Your task to perform on an android device: open app "Google Play Music" (install if not already installed) Image 0: 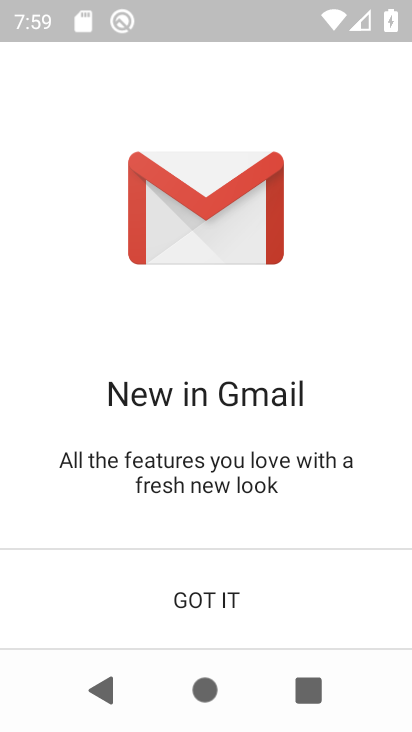
Step 0: press home button
Your task to perform on an android device: open app "Google Play Music" (install if not already installed) Image 1: 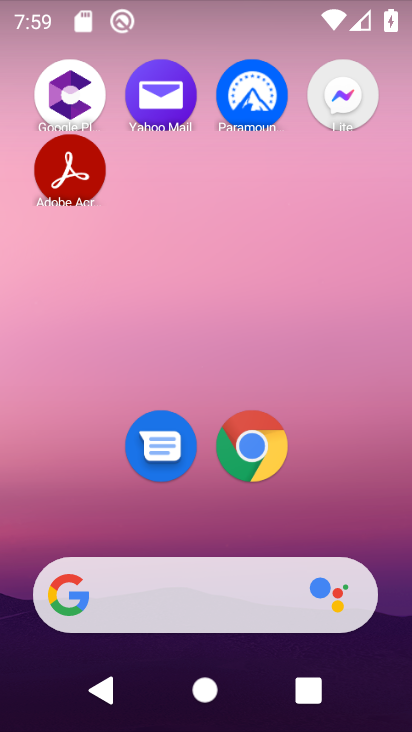
Step 1: drag from (214, 540) to (226, 104)
Your task to perform on an android device: open app "Google Play Music" (install if not already installed) Image 2: 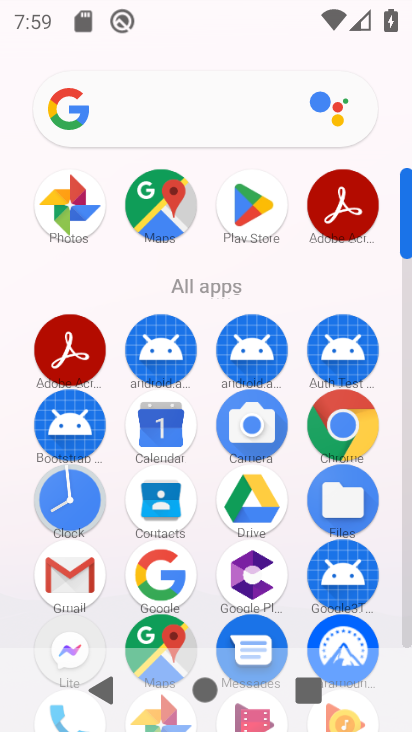
Step 2: click (207, 203)
Your task to perform on an android device: open app "Google Play Music" (install if not already installed) Image 3: 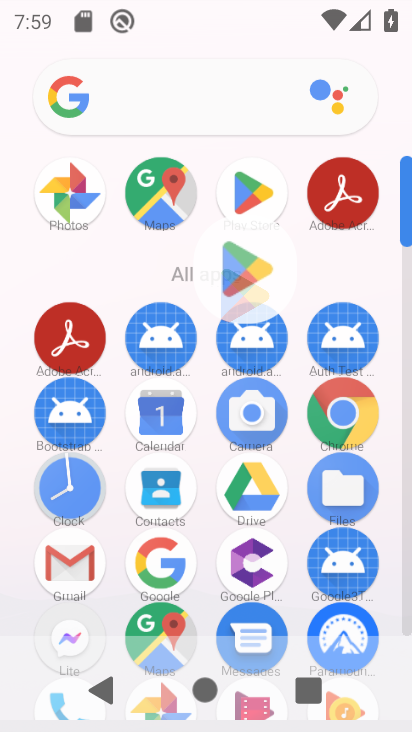
Step 3: click (242, 215)
Your task to perform on an android device: open app "Google Play Music" (install if not already installed) Image 4: 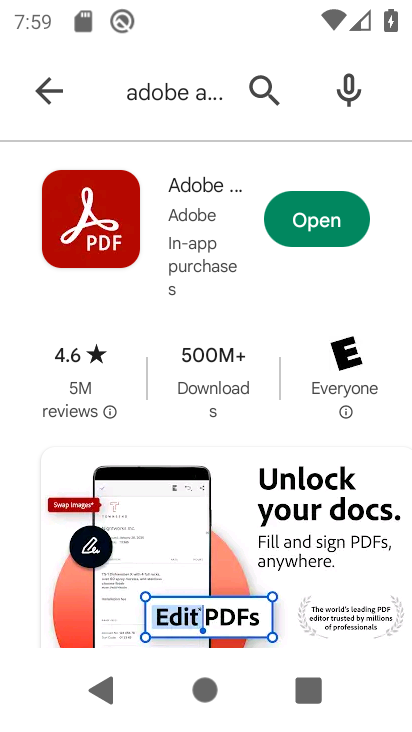
Step 4: click (276, 80)
Your task to perform on an android device: open app "Google Play Music" (install if not already installed) Image 5: 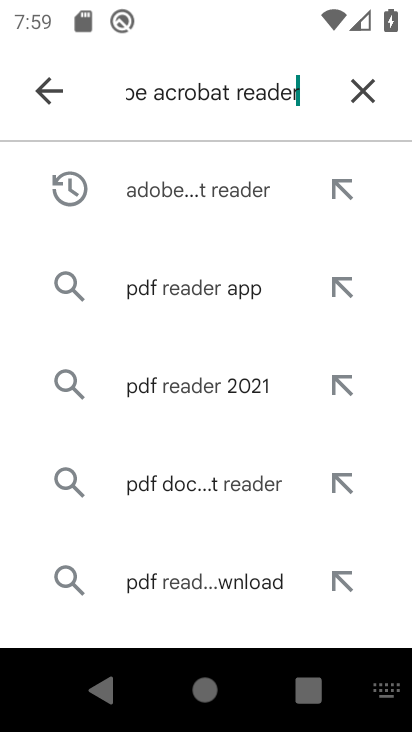
Step 5: click (367, 98)
Your task to perform on an android device: open app "Google Play Music" (install if not already installed) Image 6: 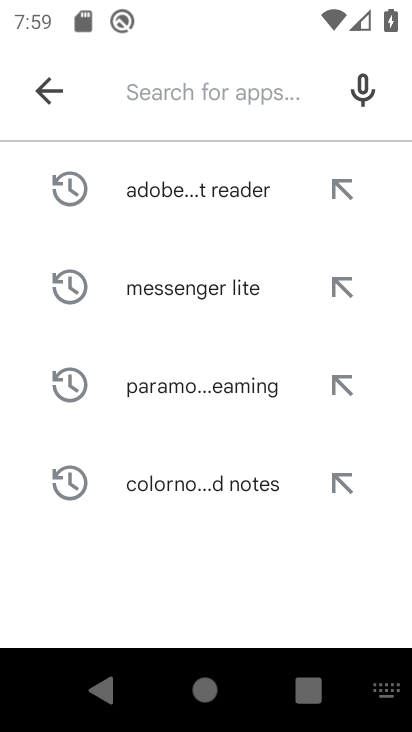
Step 6: type "Google Play Music"
Your task to perform on an android device: open app "Google Play Music" (install if not already installed) Image 7: 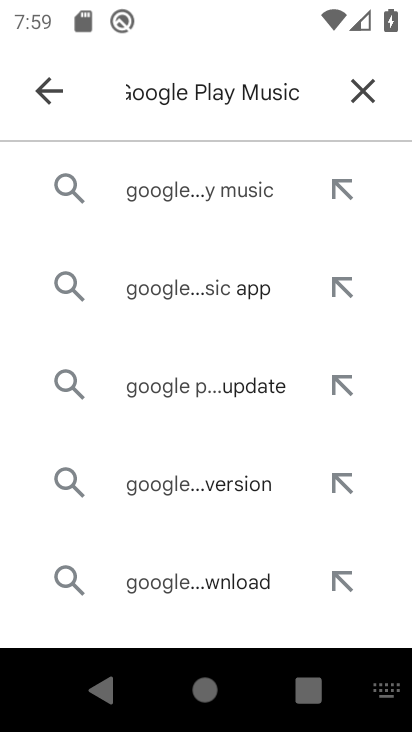
Step 7: click (242, 176)
Your task to perform on an android device: open app "Google Play Music" (install if not already installed) Image 8: 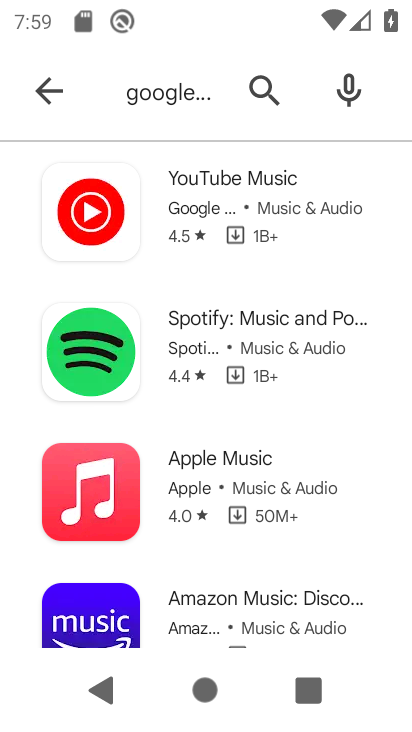
Step 8: task complete